Your task to perform on an android device: turn pop-ups on in chrome Image 0: 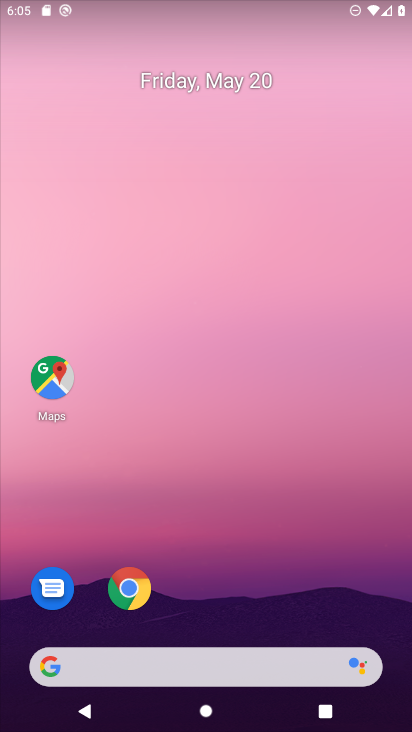
Step 0: click (124, 603)
Your task to perform on an android device: turn pop-ups on in chrome Image 1: 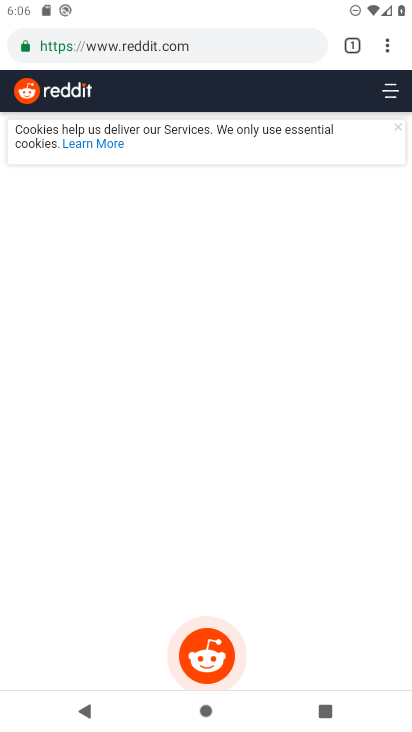
Step 1: click (382, 47)
Your task to perform on an android device: turn pop-ups on in chrome Image 2: 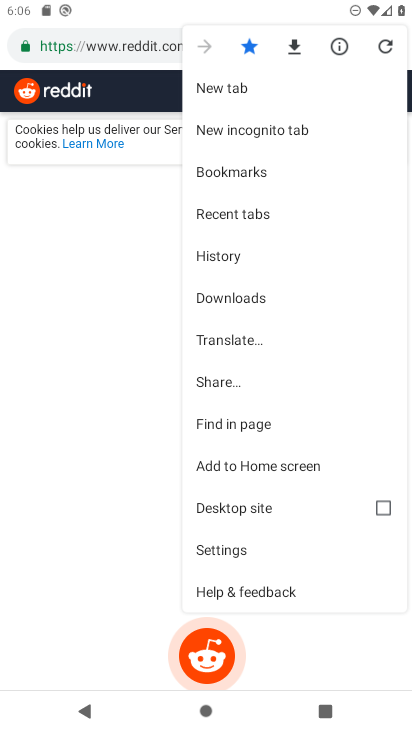
Step 2: click (224, 552)
Your task to perform on an android device: turn pop-ups on in chrome Image 3: 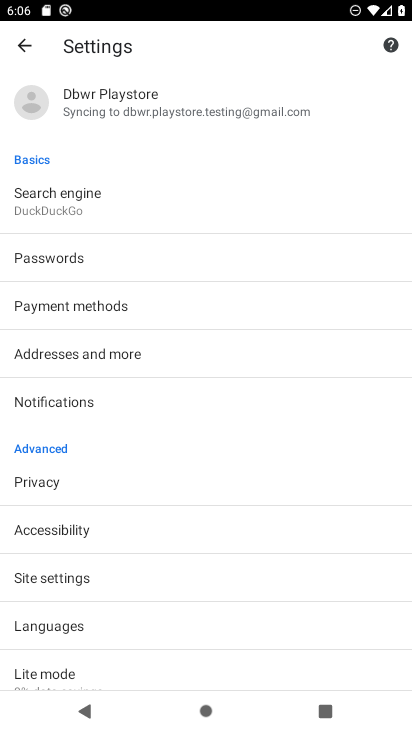
Step 3: click (49, 583)
Your task to perform on an android device: turn pop-ups on in chrome Image 4: 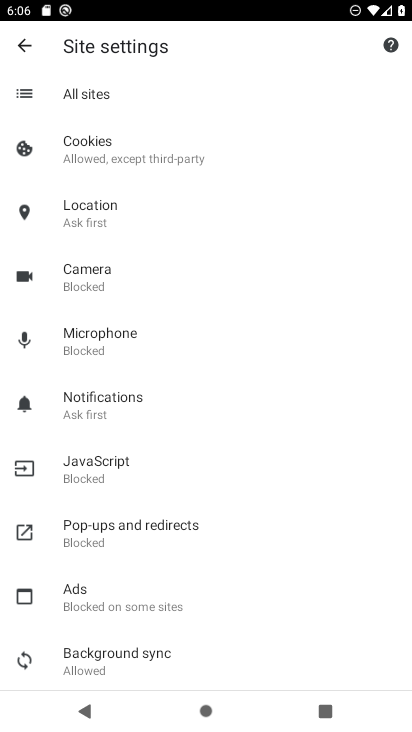
Step 4: click (99, 529)
Your task to perform on an android device: turn pop-ups on in chrome Image 5: 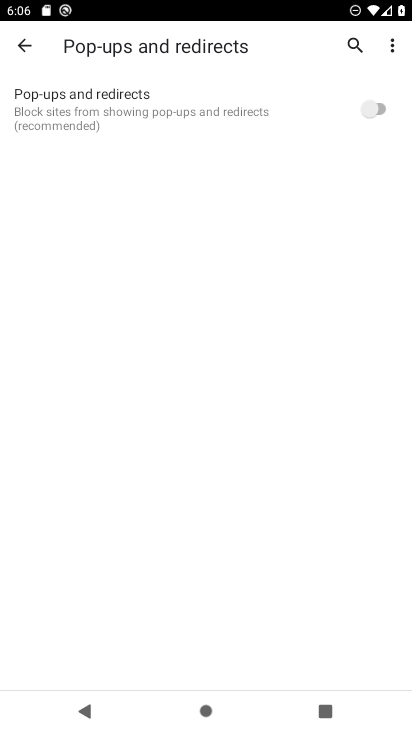
Step 5: click (380, 110)
Your task to perform on an android device: turn pop-ups on in chrome Image 6: 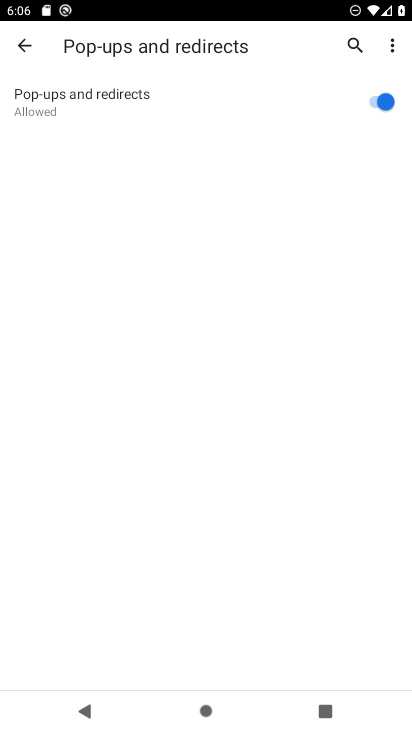
Step 6: task complete